Your task to perform on an android device: When is my next meeting? Image 0: 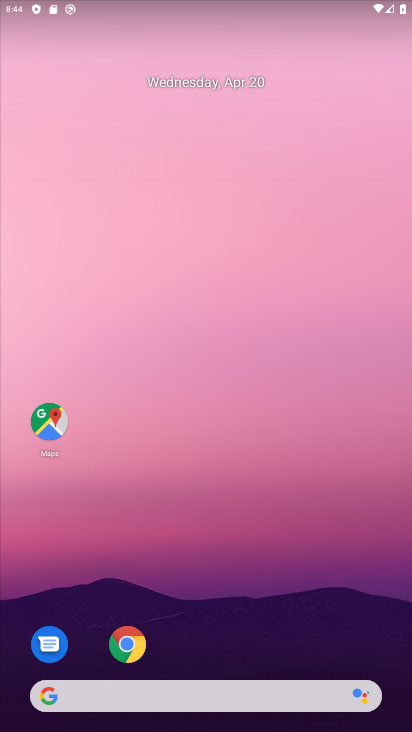
Step 0: drag from (173, 682) to (208, 451)
Your task to perform on an android device: When is my next meeting? Image 1: 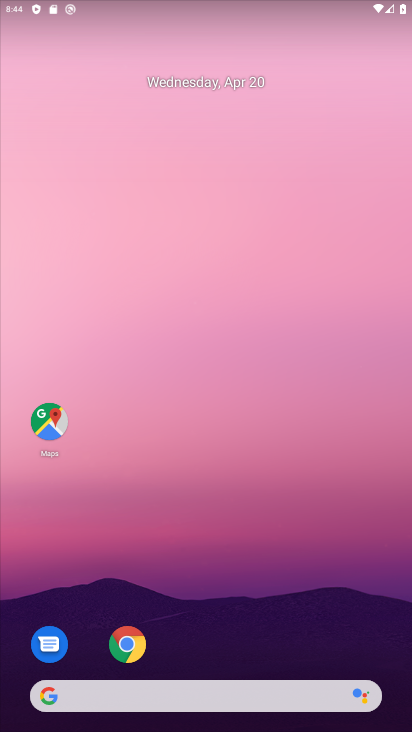
Step 1: drag from (200, 679) to (247, 379)
Your task to perform on an android device: When is my next meeting? Image 2: 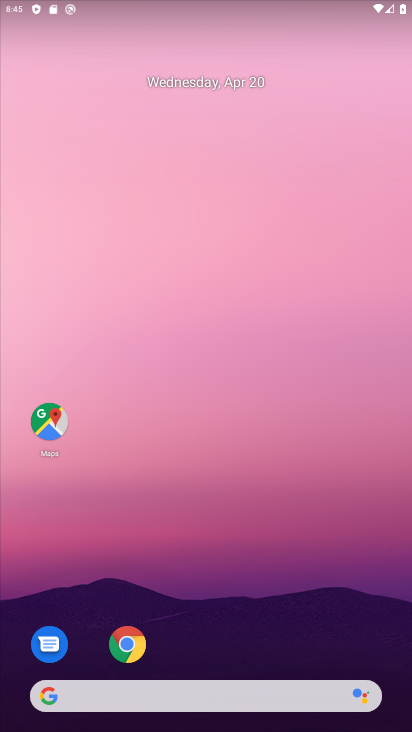
Step 2: drag from (166, 681) to (170, 254)
Your task to perform on an android device: When is my next meeting? Image 3: 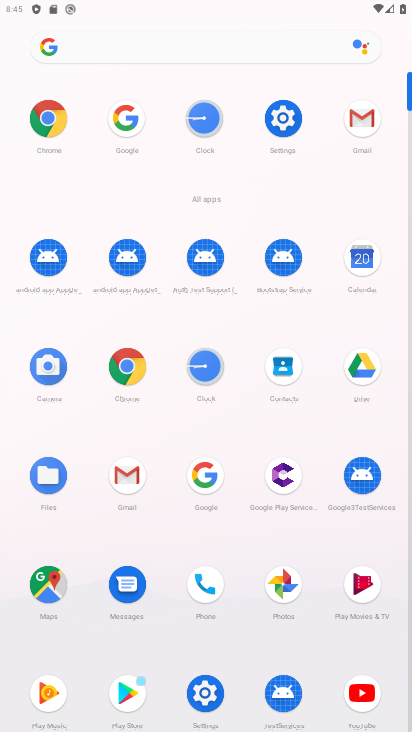
Step 3: click (369, 264)
Your task to perform on an android device: When is my next meeting? Image 4: 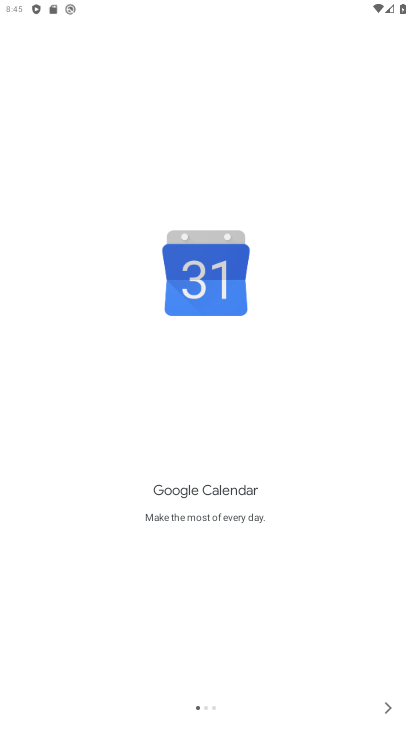
Step 4: click (389, 707)
Your task to perform on an android device: When is my next meeting? Image 5: 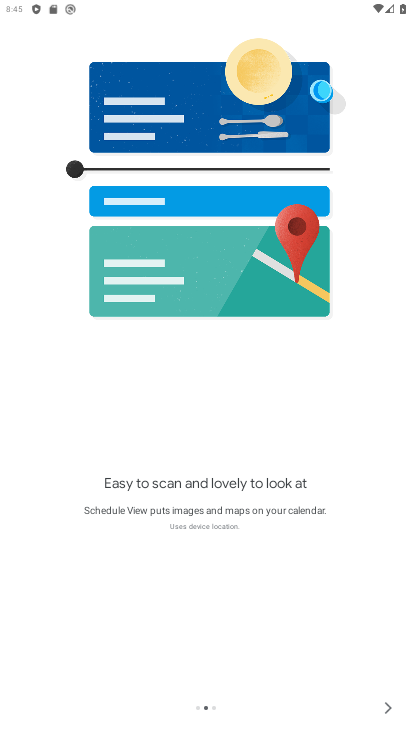
Step 5: click (391, 707)
Your task to perform on an android device: When is my next meeting? Image 6: 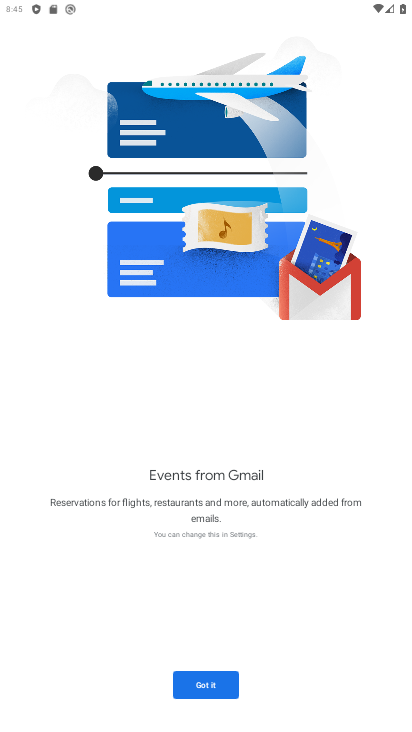
Step 6: click (205, 677)
Your task to perform on an android device: When is my next meeting? Image 7: 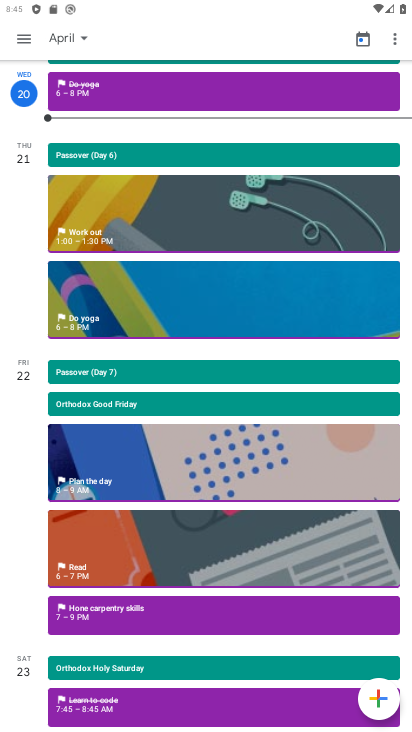
Step 7: click (31, 37)
Your task to perform on an android device: When is my next meeting? Image 8: 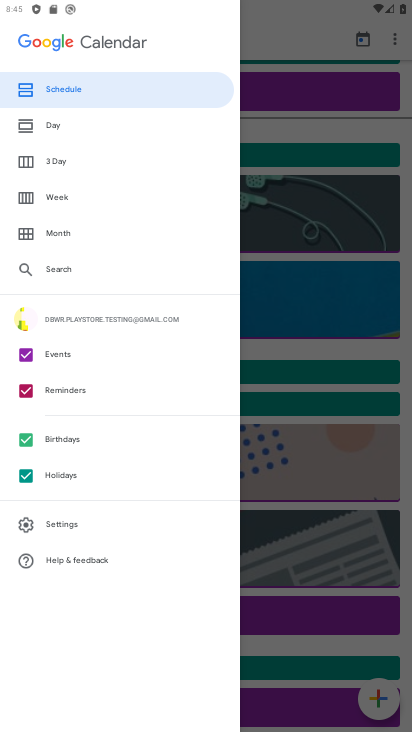
Step 8: click (76, 524)
Your task to perform on an android device: When is my next meeting? Image 9: 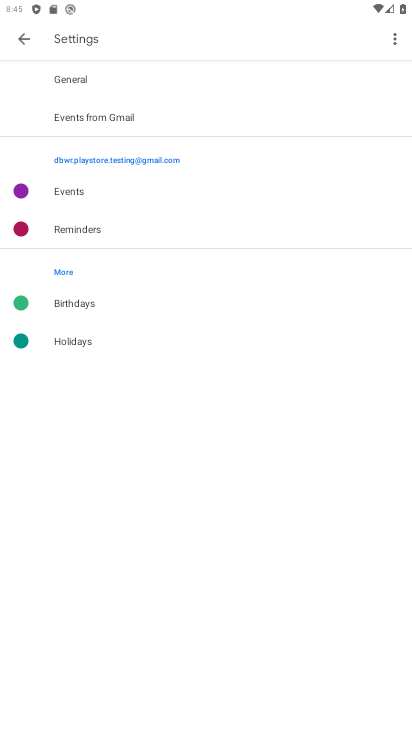
Step 9: click (54, 271)
Your task to perform on an android device: When is my next meeting? Image 10: 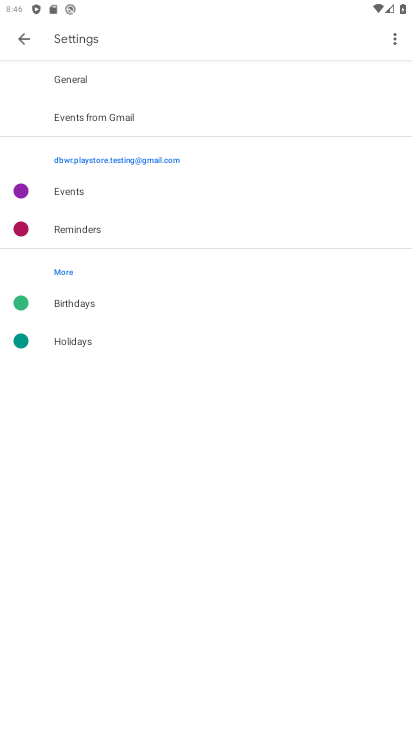
Step 10: click (70, 269)
Your task to perform on an android device: When is my next meeting? Image 11: 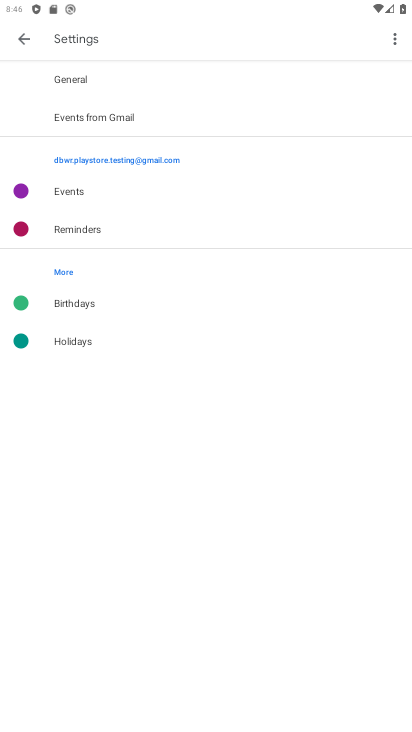
Step 11: click (23, 36)
Your task to perform on an android device: When is my next meeting? Image 12: 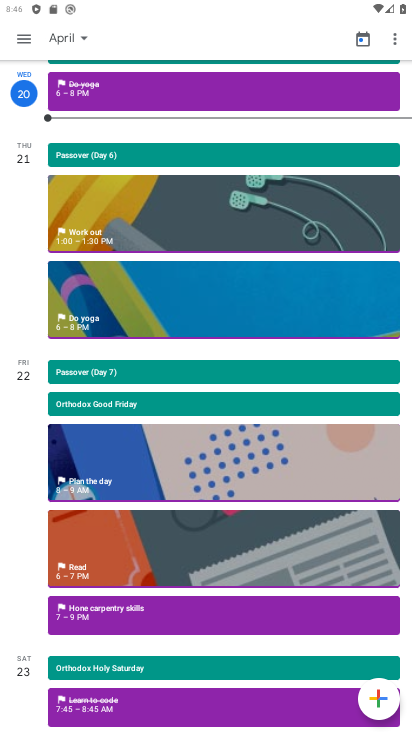
Step 12: click (394, 39)
Your task to perform on an android device: When is my next meeting? Image 13: 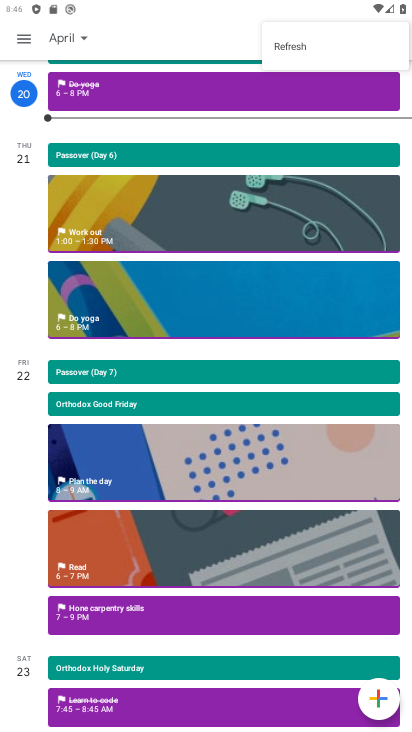
Step 13: click (32, 44)
Your task to perform on an android device: When is my next meeting? Image 14: 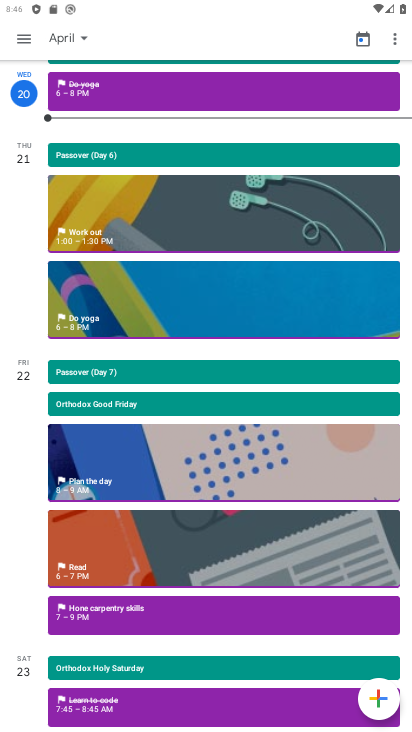
Step 14: click (69, 34)
Your task to perform on an android device: When is my next meeting? Image 15: 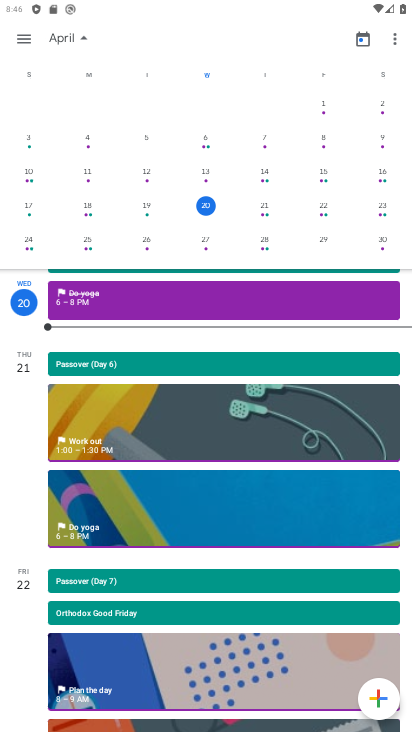
Step 15: click (25, 38)
Your task to perform on an android device: When is my next meeting? Image 16: 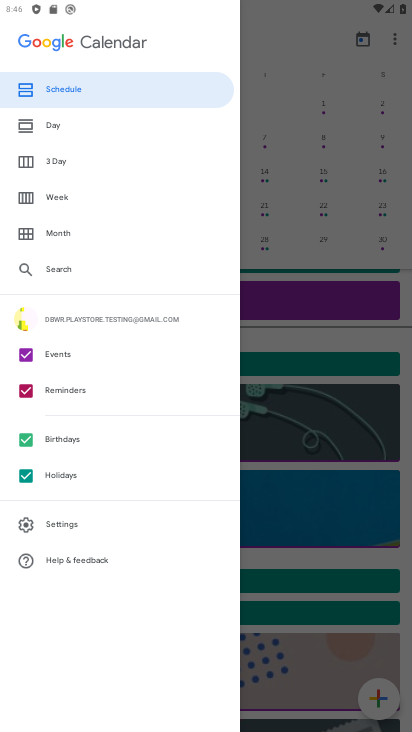
Step 16: click (66, 90)
Your task to perform on an android device: When is my next meeting? Image 17: 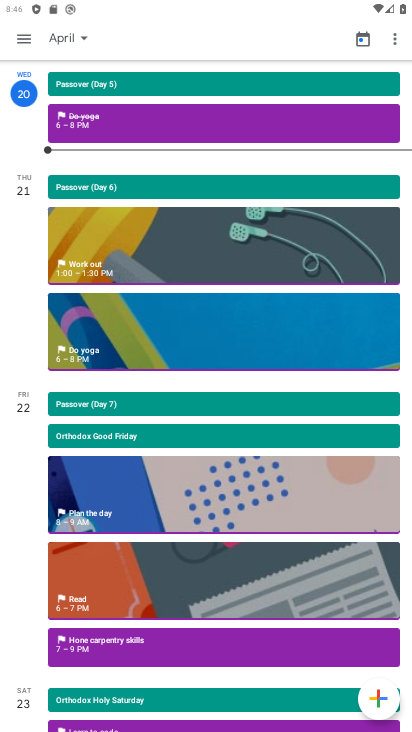
Step 17: task complete